Your task to perform on an android device: Go to Google Image 0: 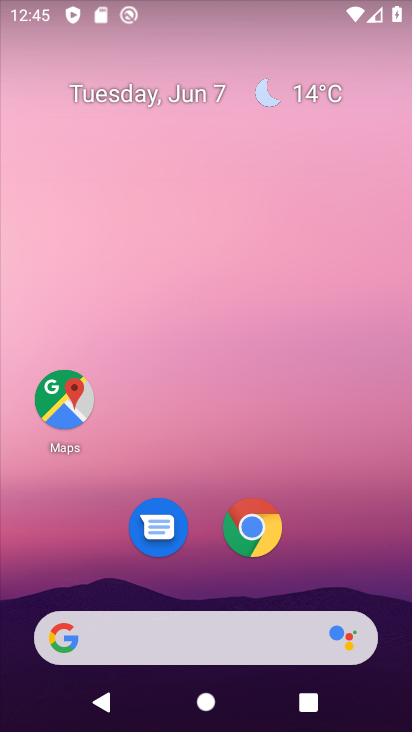
Step 0: drag from (201, 536) to (253, 75)
Your task to perform on an android device: Go to Google Image 1: 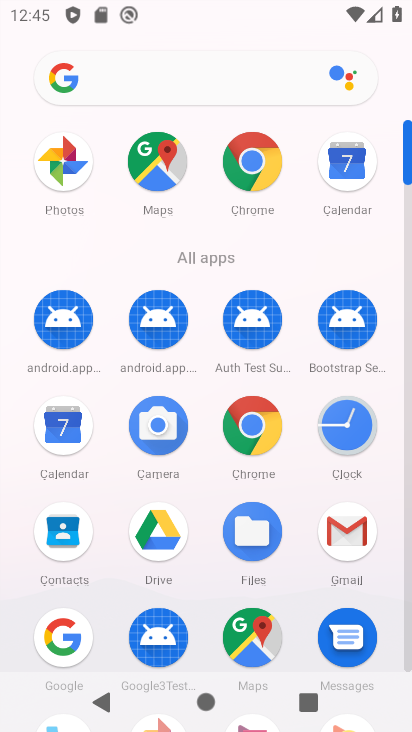
Step 1: click (69, 635)
Your task to perform on an android device: Go to Google Image 2: 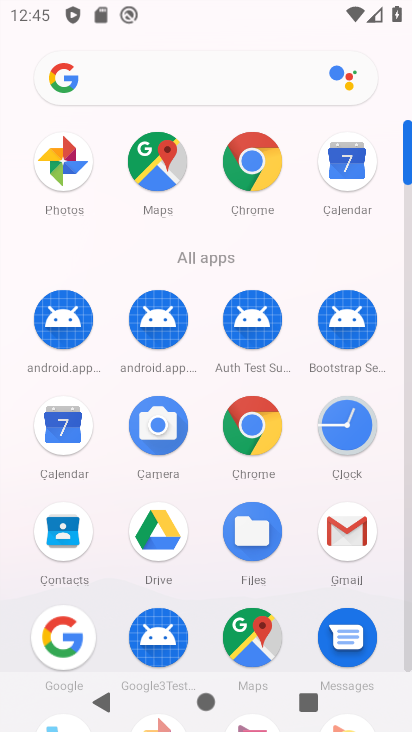
Step 2: click (61, 636)
Your task to perform on an android device: Go to Google Image 3: 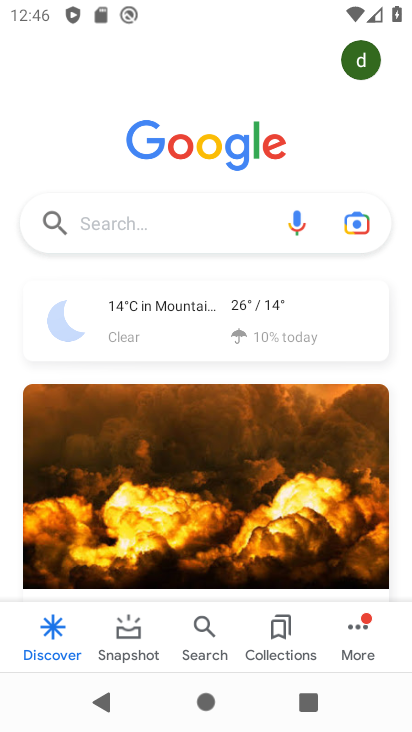
Step 3: task complete